Your task to perform on an android device: Open the Play Movies app and select the watchlist tab. Image 0: 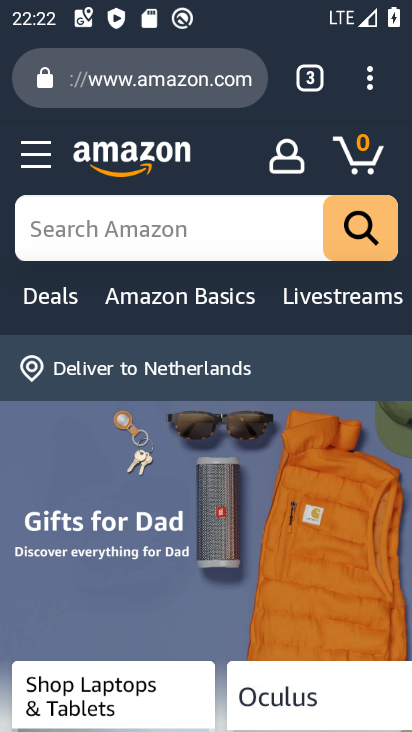
Step 0: press home button
Your task to perform on an android device: Open the Play Movies app and select the watchlist tab. Image 1: 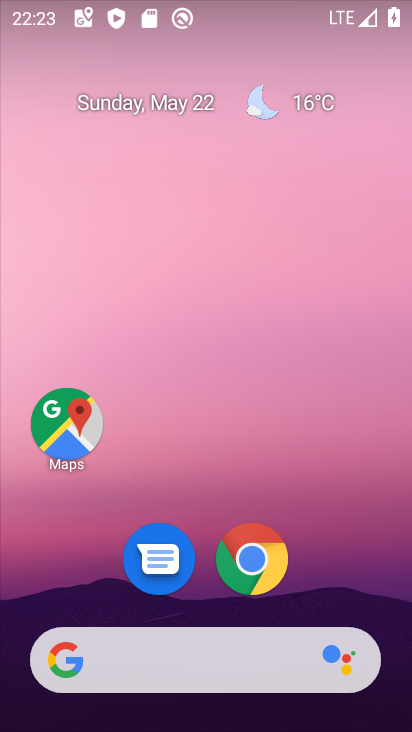
Step 1: drag from (282, 697) to (389, 256)
Your task to perform on an android device: Open the Play Movies app and select the watchlist tab. Image 2: 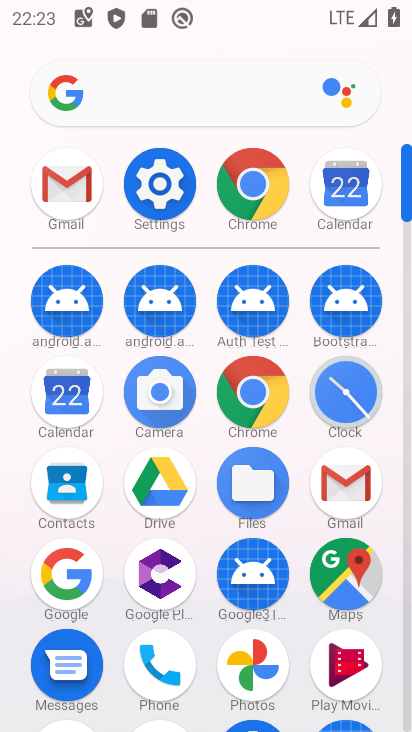
Step 2: click (337, 642)
Your task to perform on an android device: Open the Play Movies app and select the watchlist tab. Image 3: 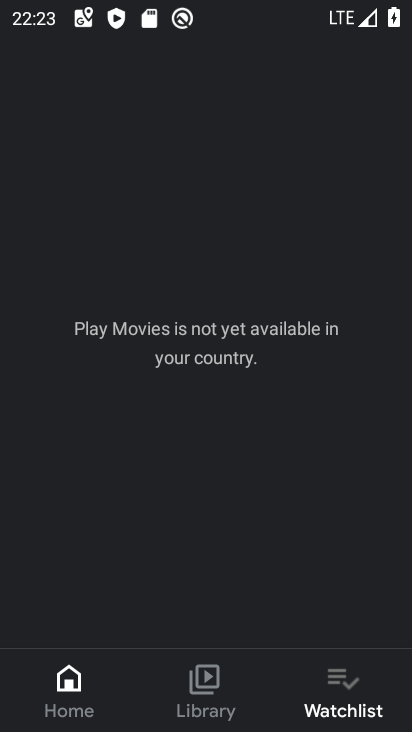
Step 3: task complete